Your task to perform on an android device: Open display settings Image 0: 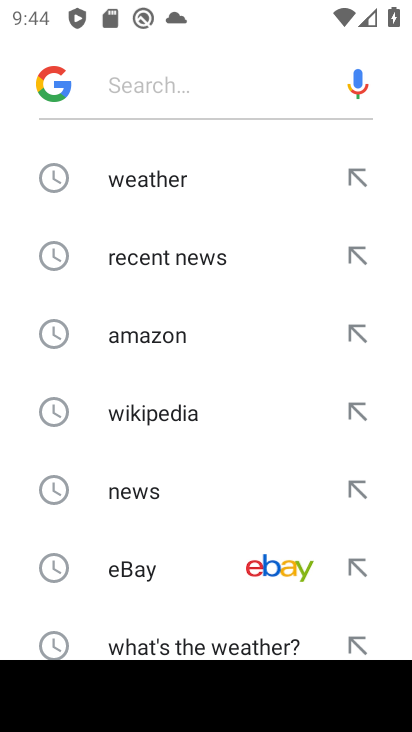
Step 0: press home button
Your task to perform on an android device: Open display settings Image 1: 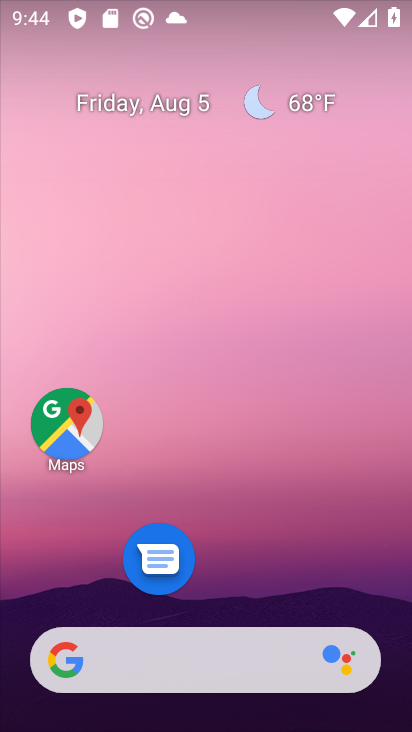
Step 1: drag from (239, 626) to (274, 147)
Your task to perform on an android device: Open display settings Image 2: 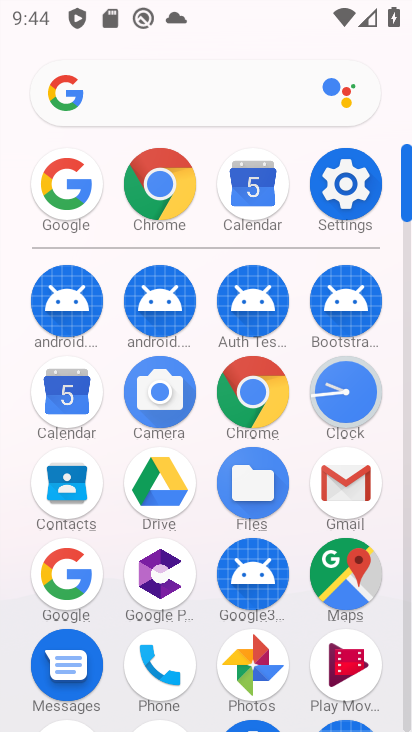
Step 2: click (352, 197)
Your task to perform on an android device: Open display settings Image 3: 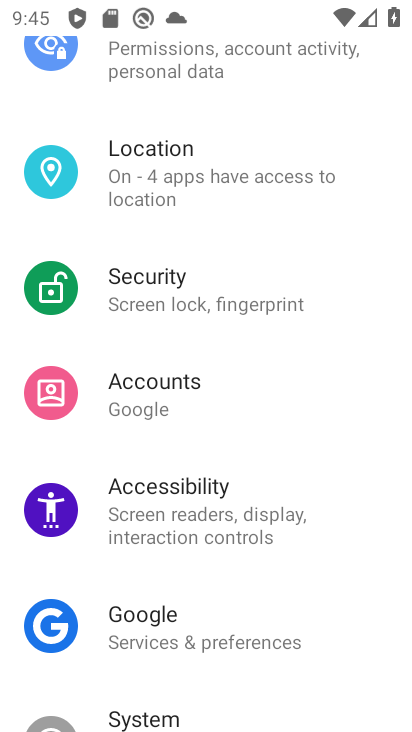
Step 3: drag from (230, 419) to (226, 717)
Your task to perform on an android device: Open display settings Image 4: 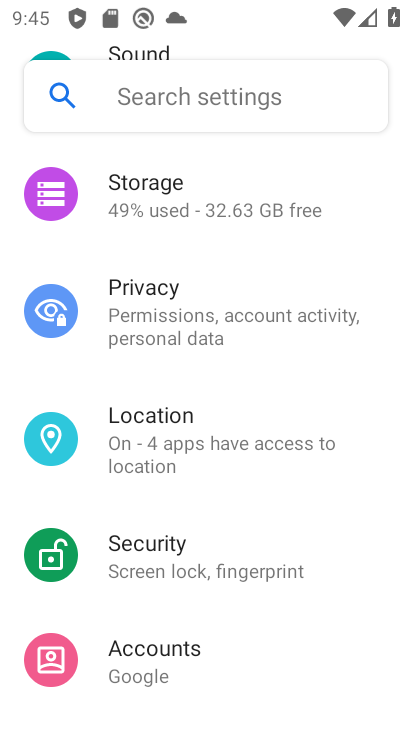
Step 4: drag from (248, 351) to (243, 703)
Your task to perform on an android device: Open display settings Image 5: 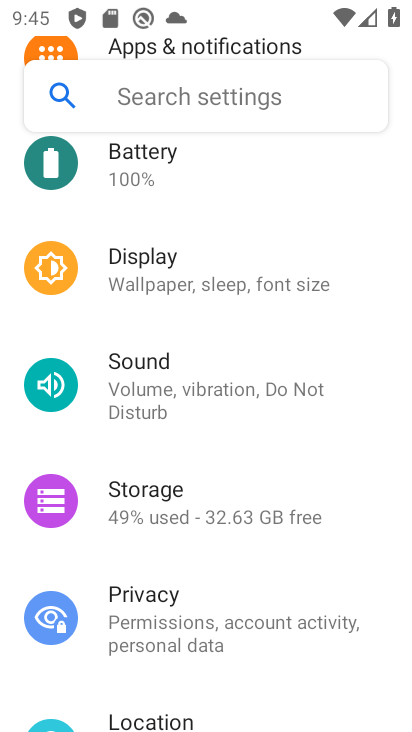
Step 5: click (214, 289)
Your task to perform on an android device: Open display settings Image 6: 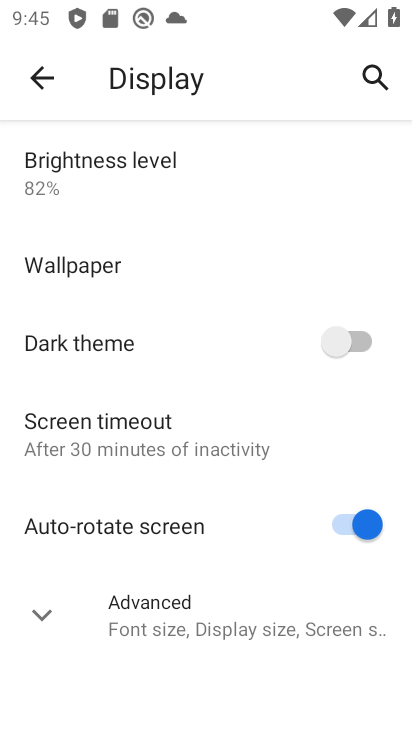
Step 6: task complete